Your task to perform on an android device: refresh tabs in the chrome app Image 0: 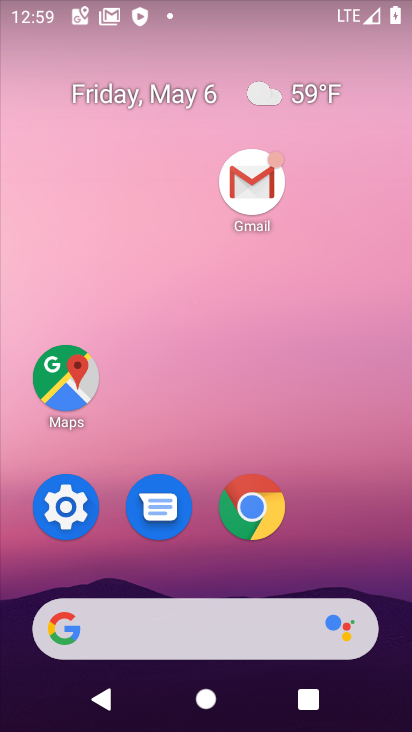
Step 0: click (257, 515)
Your task to perform on an android device: refresh tabs in the chrome app Image 1: 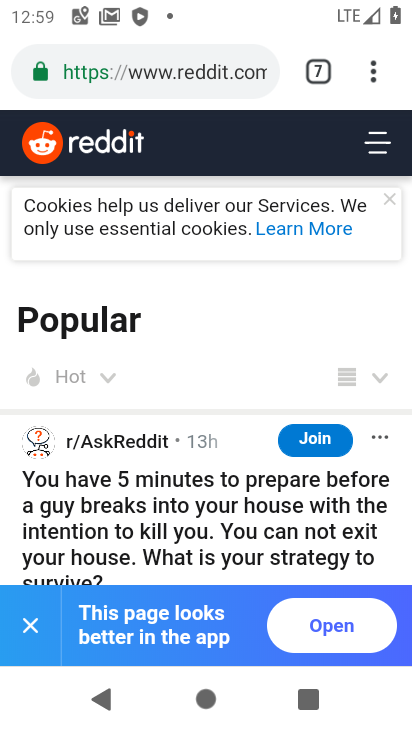
Step 1: click (379, 78)
Your task to perform on an android device: refresh tabs in the chrome app Image 2: 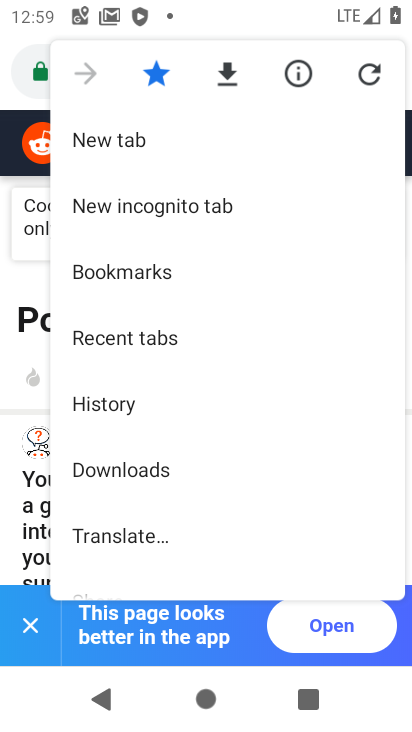
Step 2: click (366, 76)
Your task to perform on an android device: refresh tabs in the chrome app Image 3: 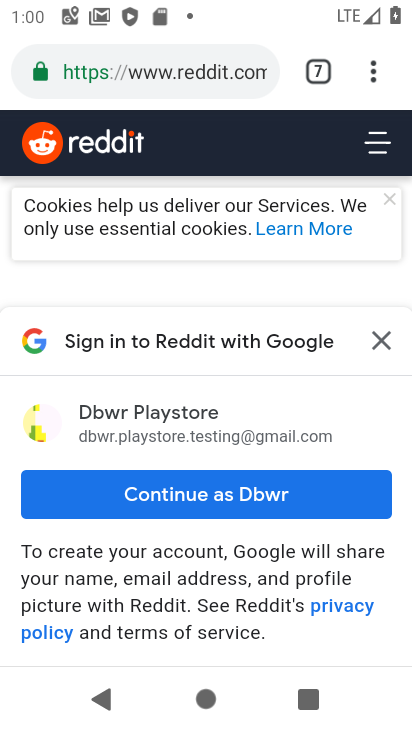
Step 3: task complete